Your task to perform on an android device: check out phone information Image 0: 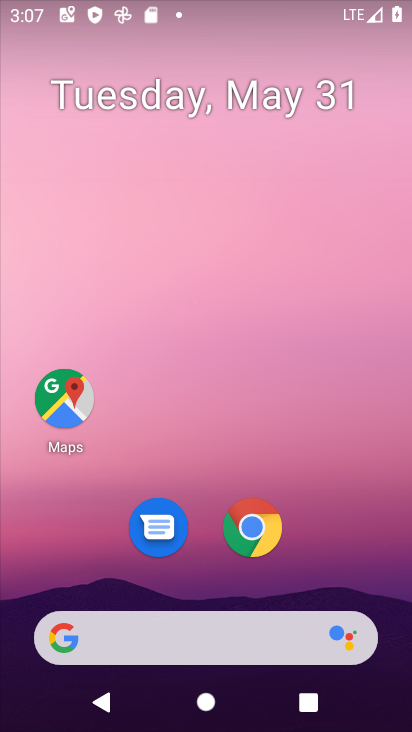
Step 0: drag from (338, 527) to (286, 27)
Your task to perform on an android device: check out phone information Image 1: 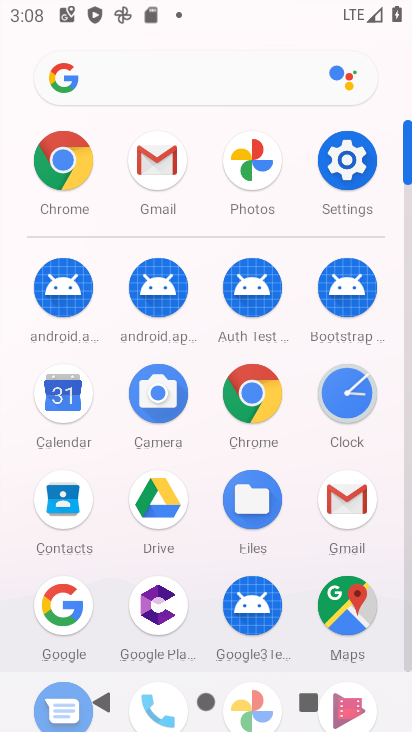
Step 1: click (346, 165)
Your task to perform on an android device: check out phone information Image 2: 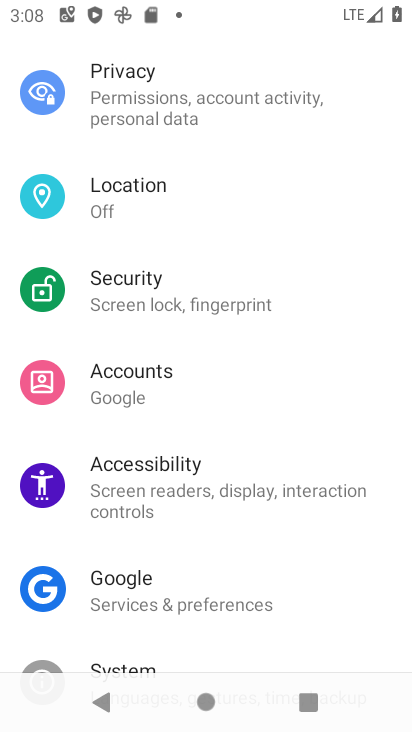
Step 2: task complete